Your task to perform on an android device: set the timer Image 0: 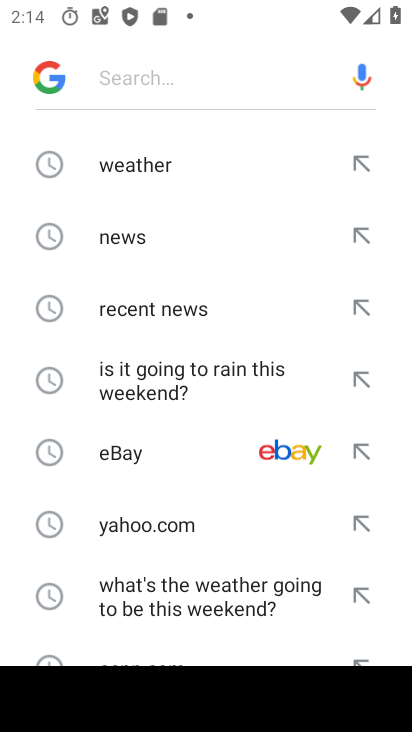
Step 0: press home button
Your task to perform on an android device: set the timer Image 1: 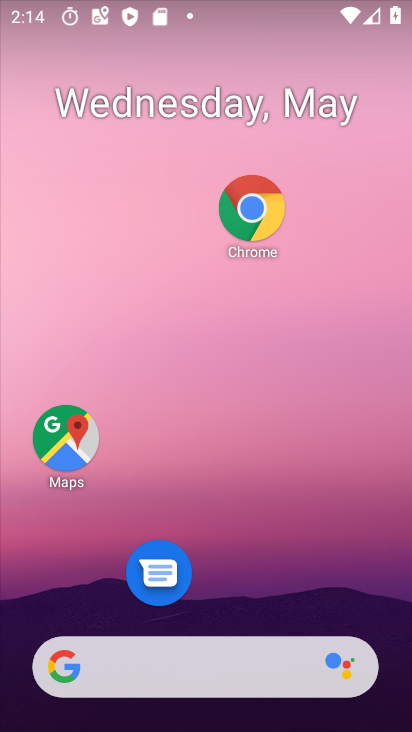
Step 1: drag from (226, 615) to (189, 257)
Your task to perform on an android device: set the timer Image 2: 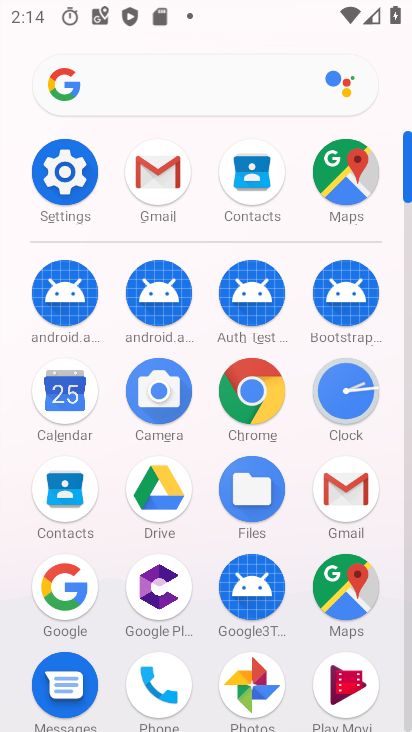
Step 2: drag from (238, 593) to (181, 140)
Your task to perform on an android device: set the timer Image 3: 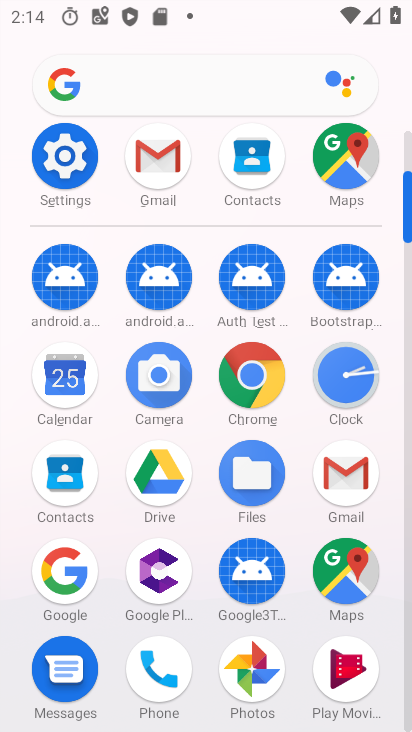
Step 3: click (368, 127)
Your task to perform on an android device: set the timer Image 4: 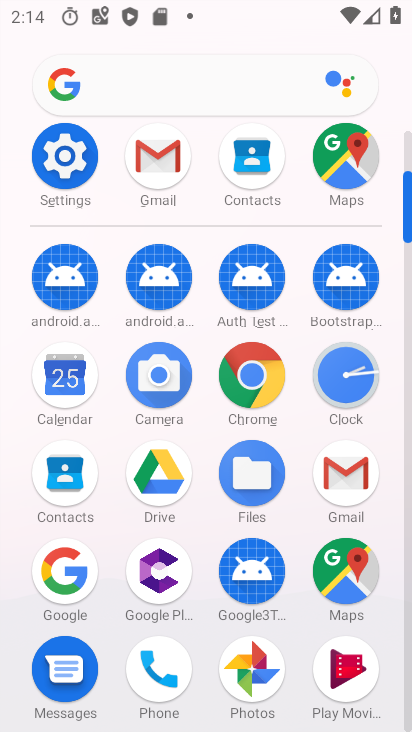
Step 4: click (341, 381)
Your task to perform on an android device: set the timer Image 5: 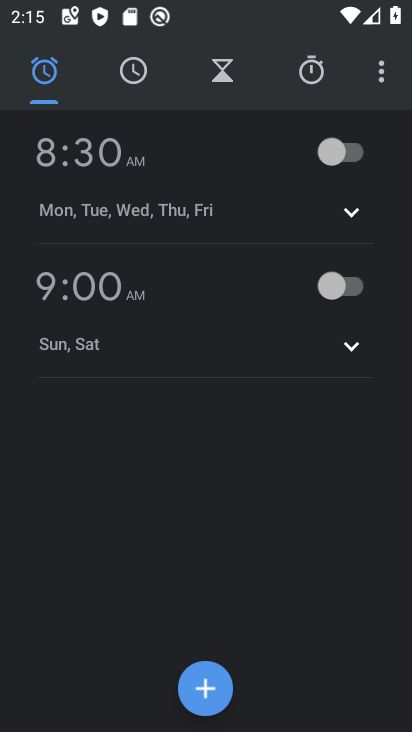
Step 5: click (230, 64)
Your task to perform on an android device: set the timer Image 6: 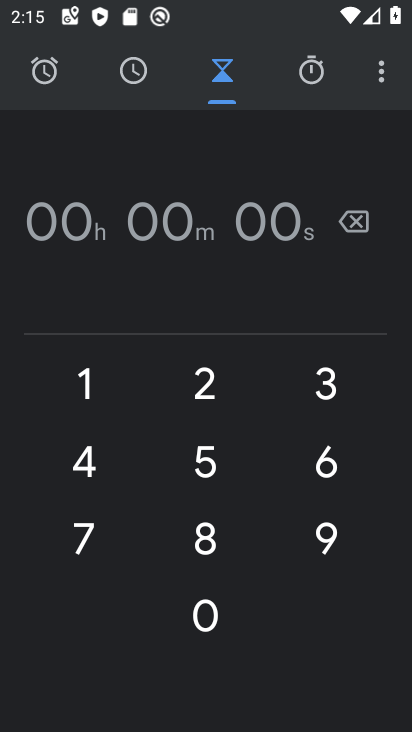
Step 6: click (354, 284)
Your task to perform on an android device: set the timer Image 7: 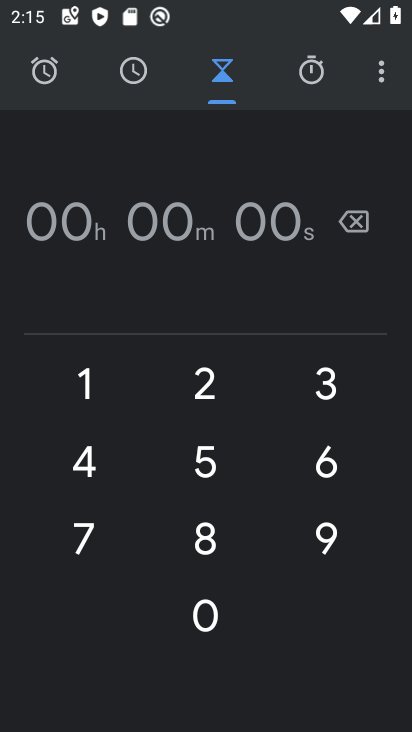
Step 7: click (337, 371)
Your task to perform on an android device: set the timer Image 8: 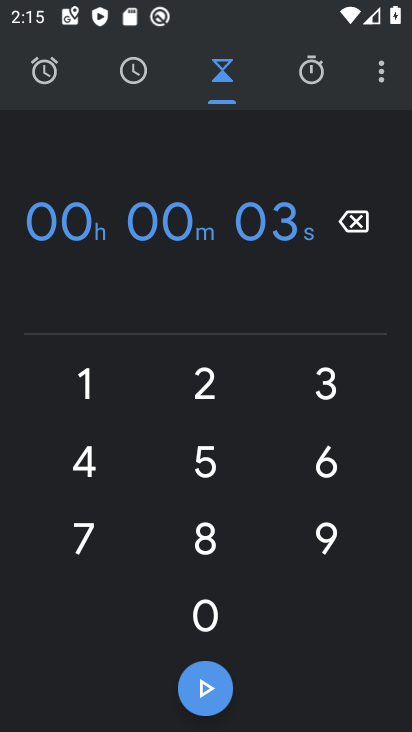
Step 8: click (199, 697)
Your task to perform on an android device: set the timer Image 9: 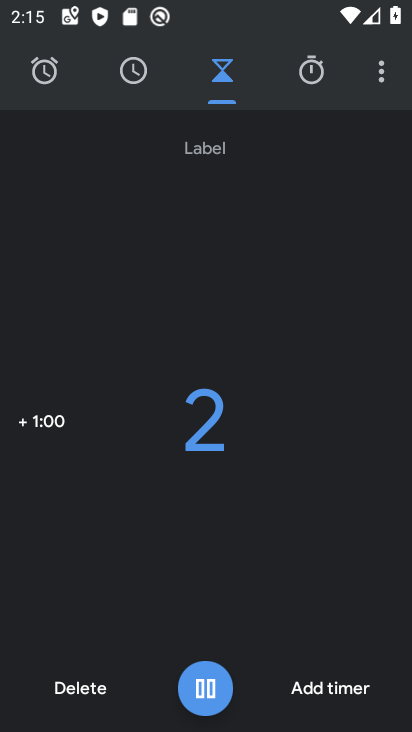
Step 9: task complete